Your task to perform on an android device: toggle priority inbox in the gmail app Image 0: 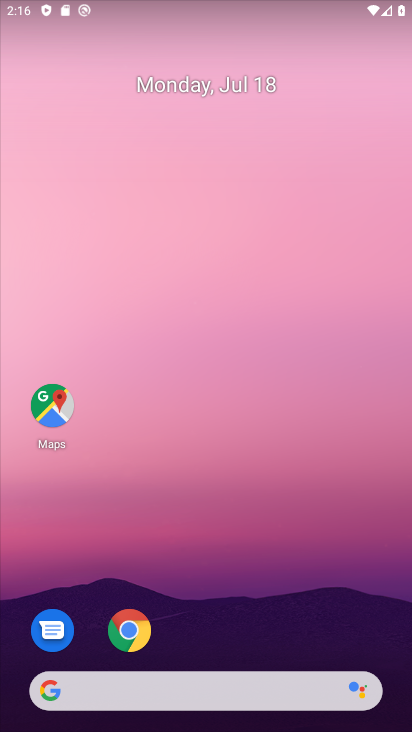
Step 0: drag from (253, 643) to (251, 2)
Your task to perform on an android device: toggle priority inbox in the gmail app Image 1: 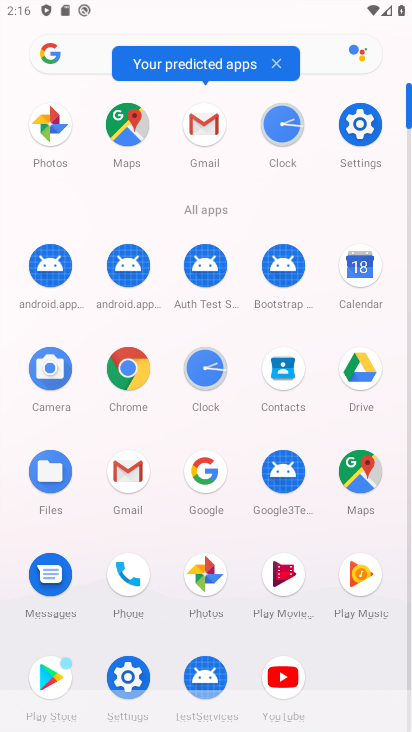
Step 1: click (200, 124)
Your task to perform on an android device: toggle priority inbox in the gmail app Image 2: 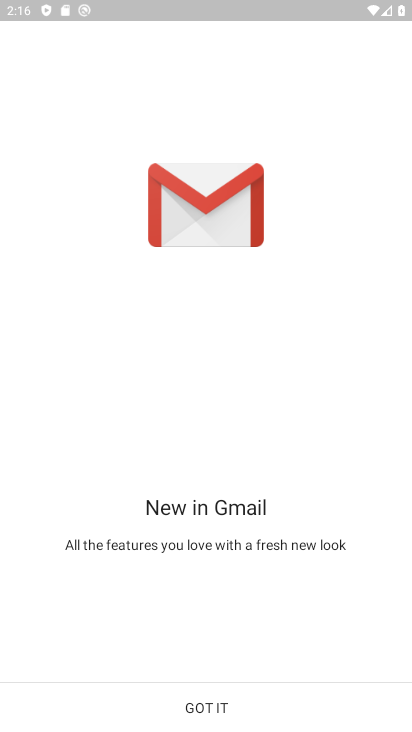
Step 2: click (215, 713)
Your task to perform on an android device: toggle priority inbox in the gmail app Image 3: 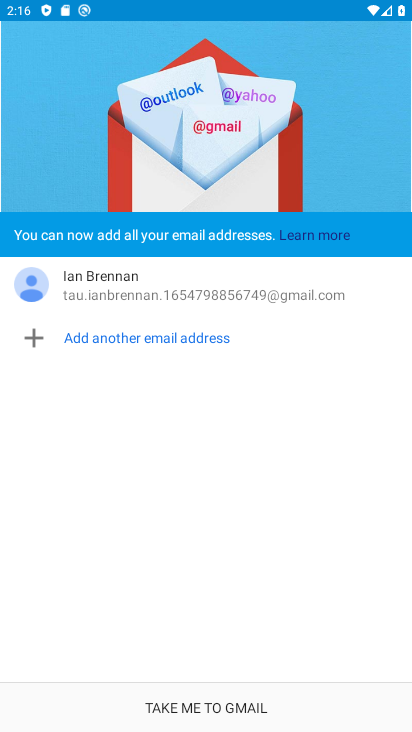
Step 3: click (226, 710)
Your task to perform on an android device: toggle priority inbox in the gmail app Image 4: 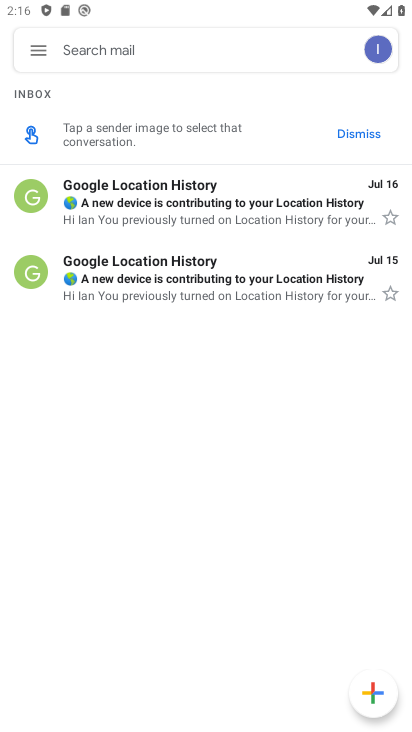
Step 4: click (40, 57)
Your task to perform on an android device: toggle priority inbox in the gmail app Image 5: 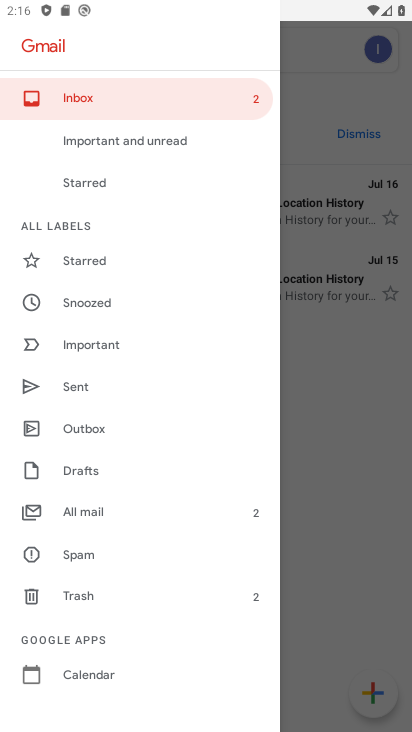
Step 5: drag from (106, 691) to (18, 250)
Your task to perform on an android device: toggle priority inbox in the gmail app Image 6: 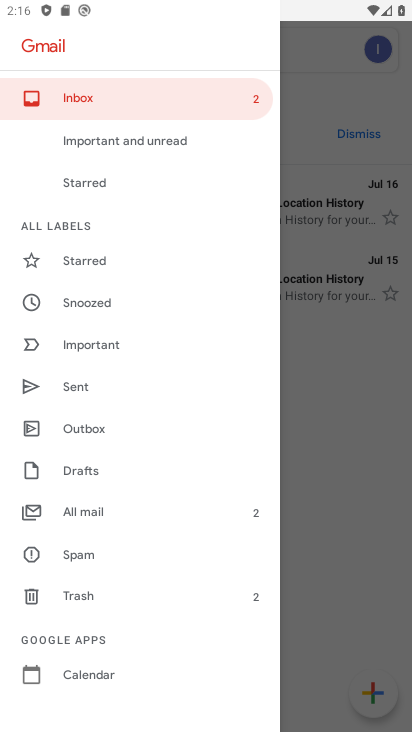
Step 6: drag from (140, 694) to (84, 411)
Your task to perform on an android device: toggle priority inbox in the gmail app Image 7: 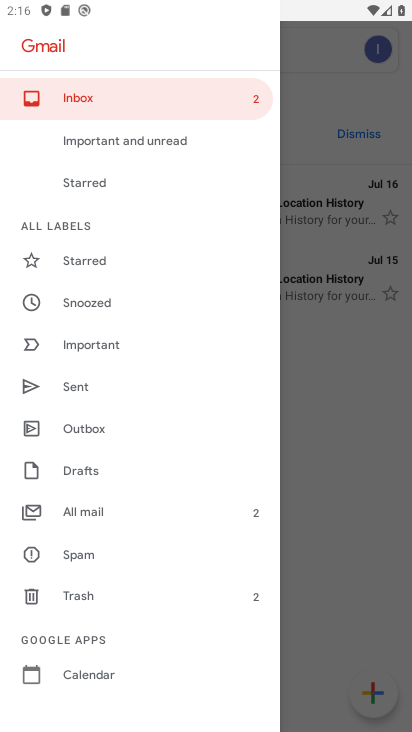
Step 7: drag from (147, 665) to (124, 403)
Your task to perform on an android device: toggle priority inbox in the gmail app Image 8: 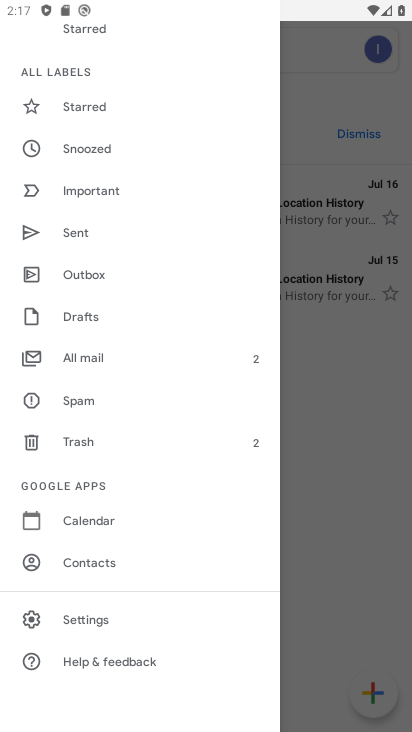
Step 8: click (127, 616)
Your task to perform on an android device: toggle priority inbox in the gmail app Image 9: 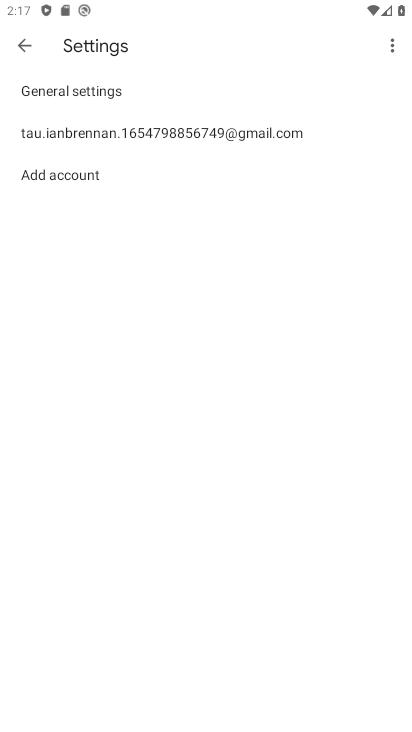
Step 9: click (233, 145)
Your task to perform on an android device: toggle priority inbox in the gmail app Image 10: 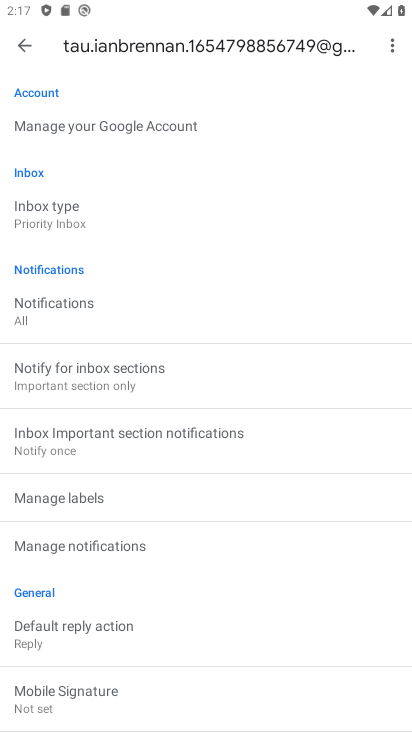
Step 10: click (195, 219)
Your task to perform on an android device: toggle priority inbox in the gmail app Image 11: 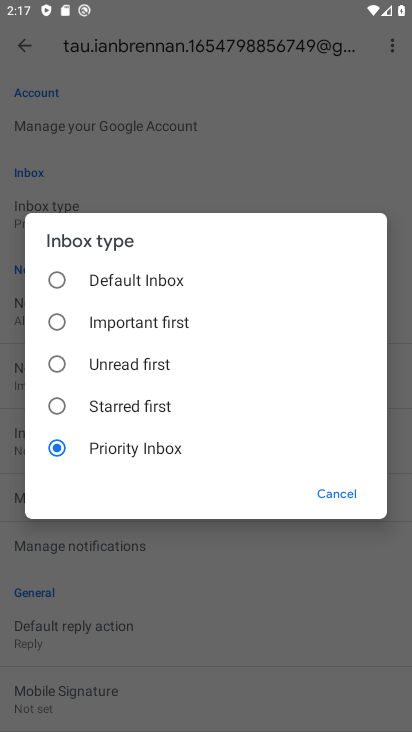
Step 11: click (157, 284)
Your task to perform on an android device: toggle priority inbox in the gmail app Image 12: 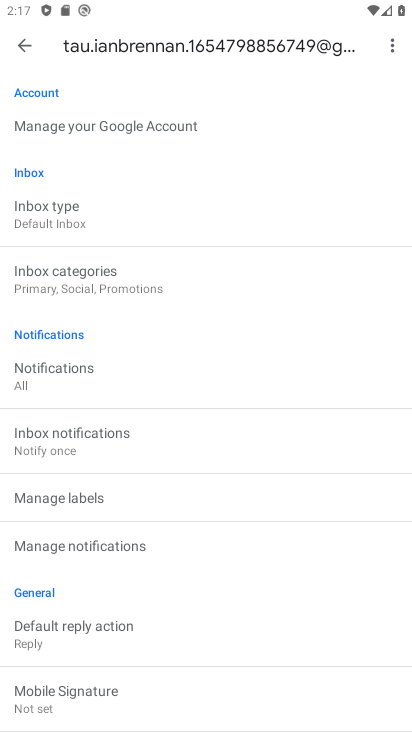
Step 12: task complete